Your task to perform on an android device: Go to CNN.com Image 0: 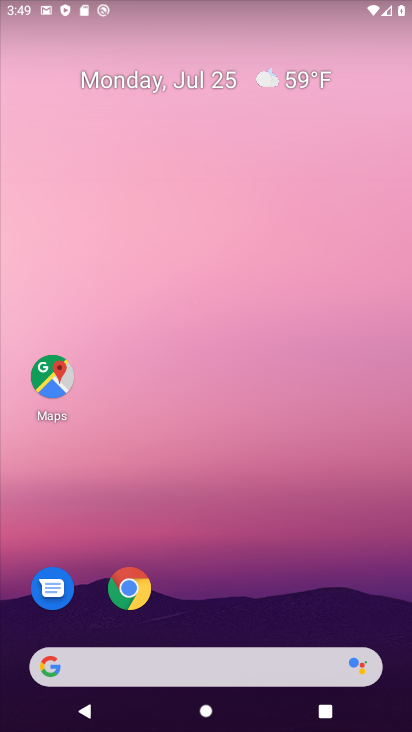
Step 0: click (132, 608)
Your task to perform on an android device: Go to CNN.com Image 1: 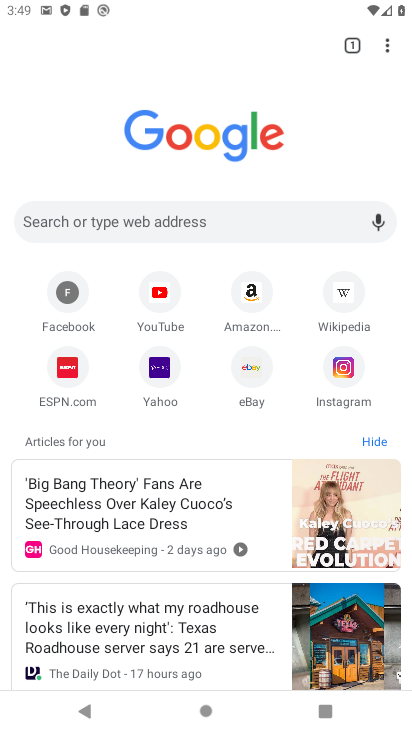
Step 1: click (177, 225)
Your task to perform on an android device: Go to CNN.com Image 2: 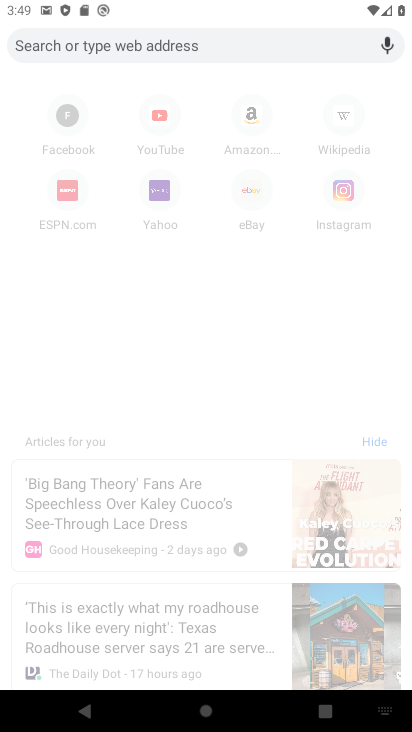
Step 2: type "CNN.com"
Your task to perform on an android device: Go to CNN.com Image 3: 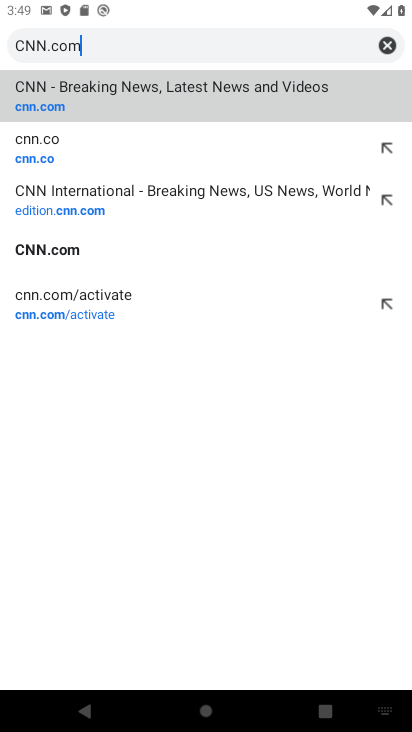
Step 3: type ""
Your task to perform on an android device: Go to CNN.com Image 4: 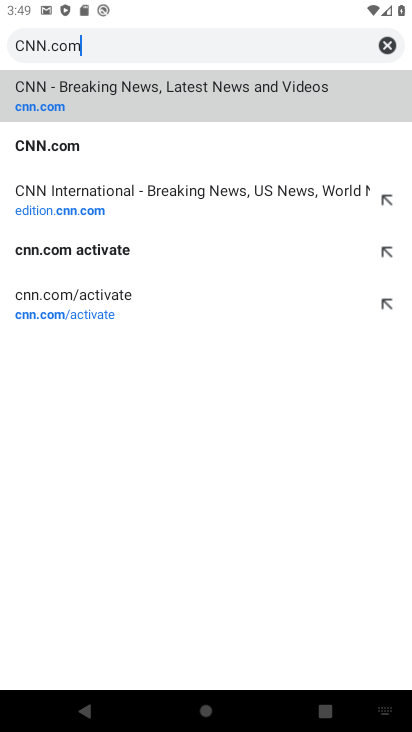
Step 4: click (96, 90)
Your task to perform on an android device: Go to CNN.com Image 5: 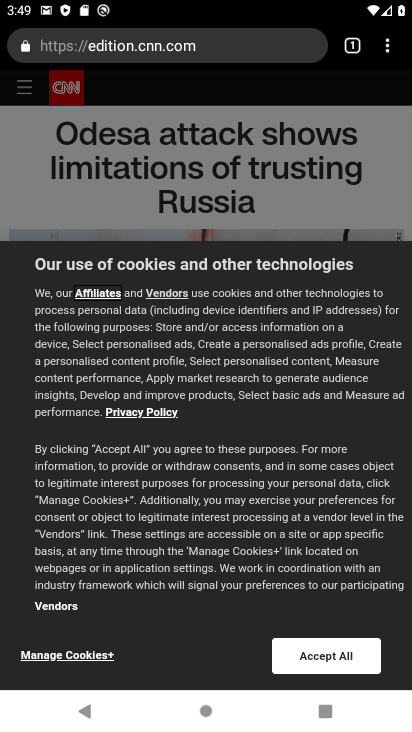
Step 5: task complete